Your task to perform on an android device: turn off notifications settings in the gmail app Image 0: 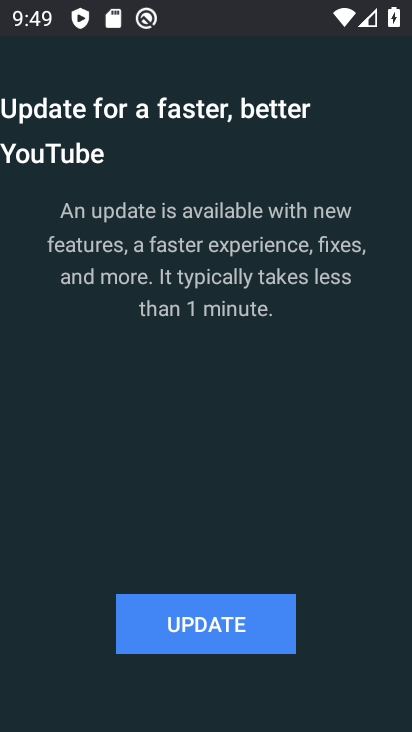
Step 0: press home button
Your task to perform on an android device: turn off notifications settings in the gmail app Image 1: 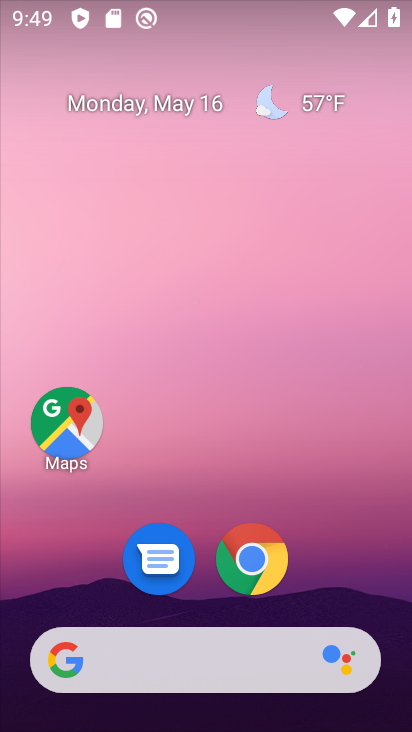
Step 1: drag from (352, 547) to (336, 56)
Your task to perform on an android device: turn off notifications settings in the gmail app Image 2: 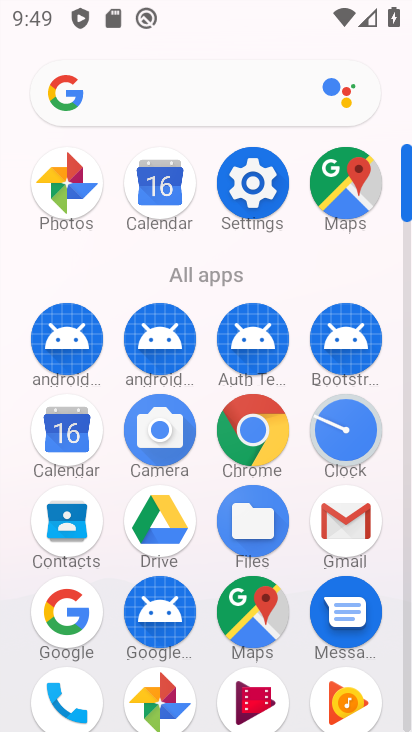
Step 2: click (356, 522)
Your task to perform on an android device: turn off notifications settings in the gmail app Image 3: 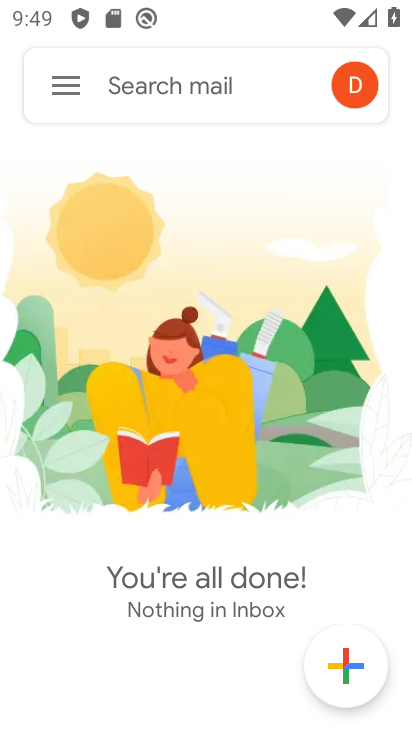
Step 3: click (69, 80)
Your task to perform on an android device: turn off notifications settings in the gmail app Image 4: 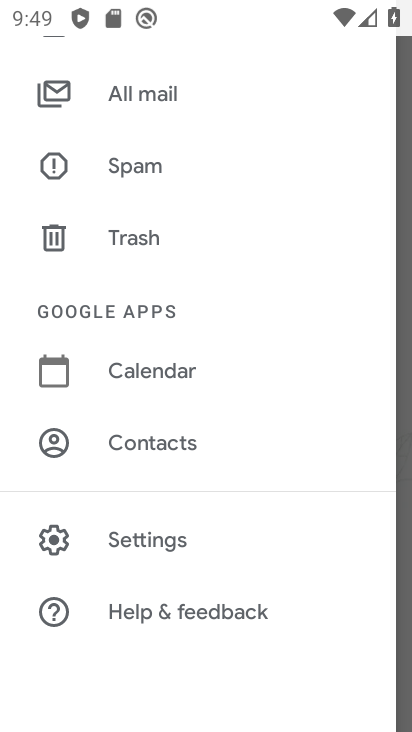
Step 4: click (187, 552)
Your task to perform on an android device: turn off notifications settings in the gmail app Image 5: 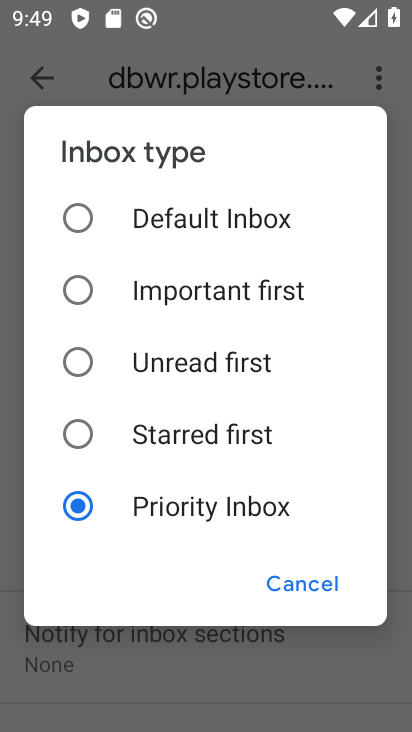
Step 5: click (284, 576)
Your task to perform on an android device: turn off notifications settings in the gmail app Image 6: 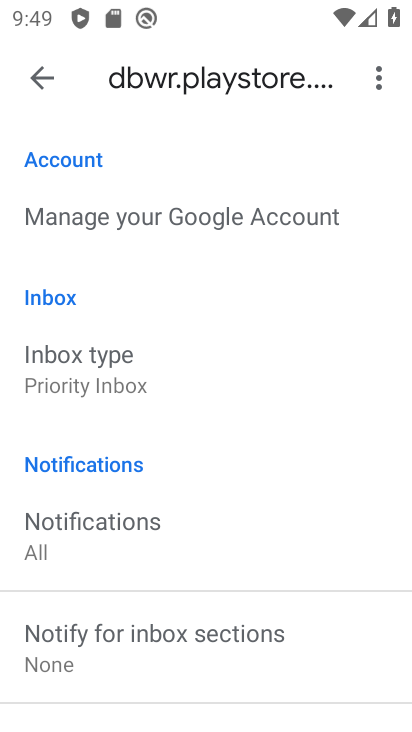
Step 6: drag from (159, 544) to (225, 206)
Your task to perform on an android device: turn off notifications settings in the gmail app Image 7: 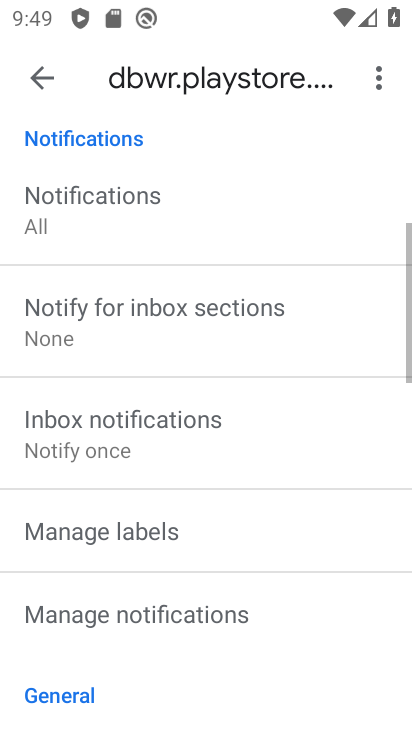
Step 7: click (149, 626)
Your task to perform on an android device: turn off notifications settings in the gmail app Image 8: 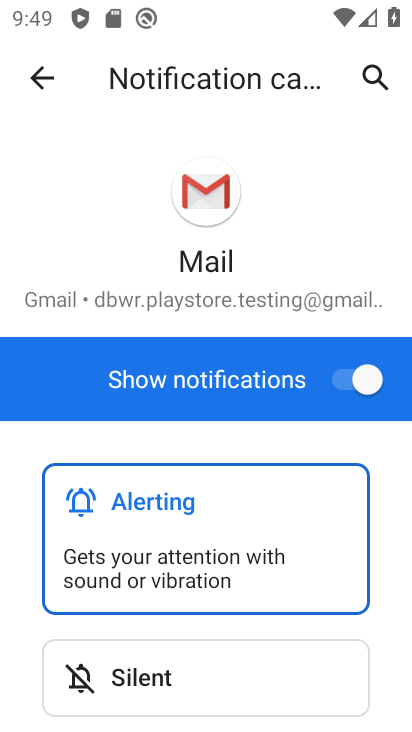
Step 8: click (352, 373)
Your task to perform on an android device: turn off notifications settings in the gmail app Image 9: 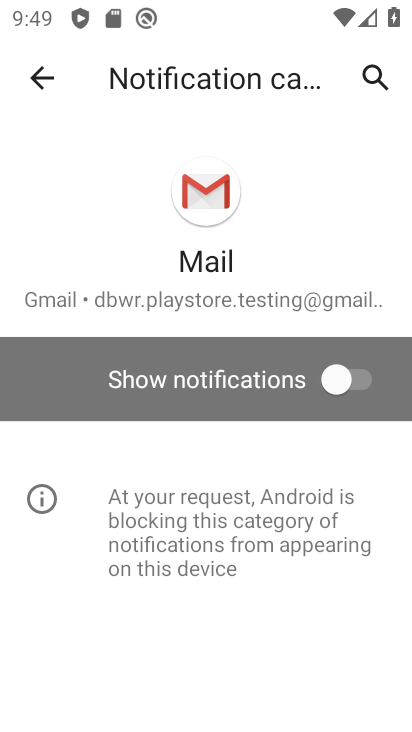
Step 9: task complete